Your task to perform on an android device: Open my contact list Image 0: 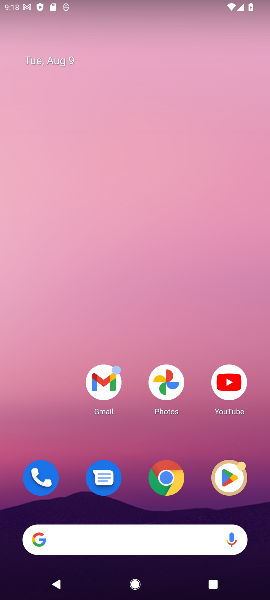
Step 0: drag from (64, 278) to (108, 68)
Your task to perform on an android device: Open my contact list Image 1: 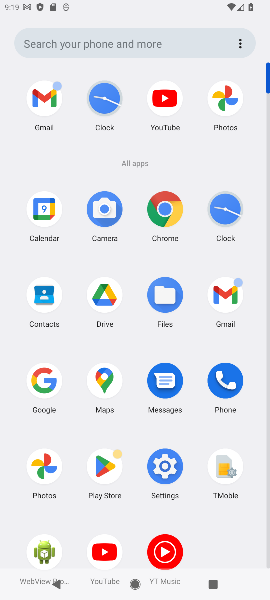
Step 1: click (47, 299)
Your task to perform on an android device: Open my contact list Image 2: 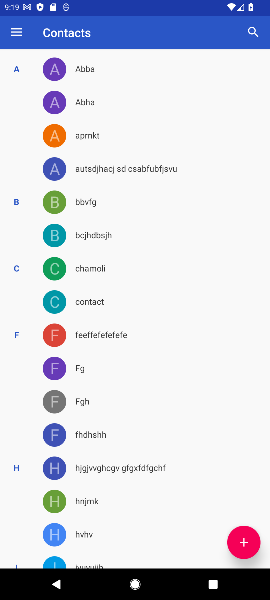
Step 2: task complete